Your task to perform on an android device: Show the shopping cart on amazon.com. Search for duracell triple a on amazon.com, select the first entry, add it to the cart, then select checkout. Image 0: 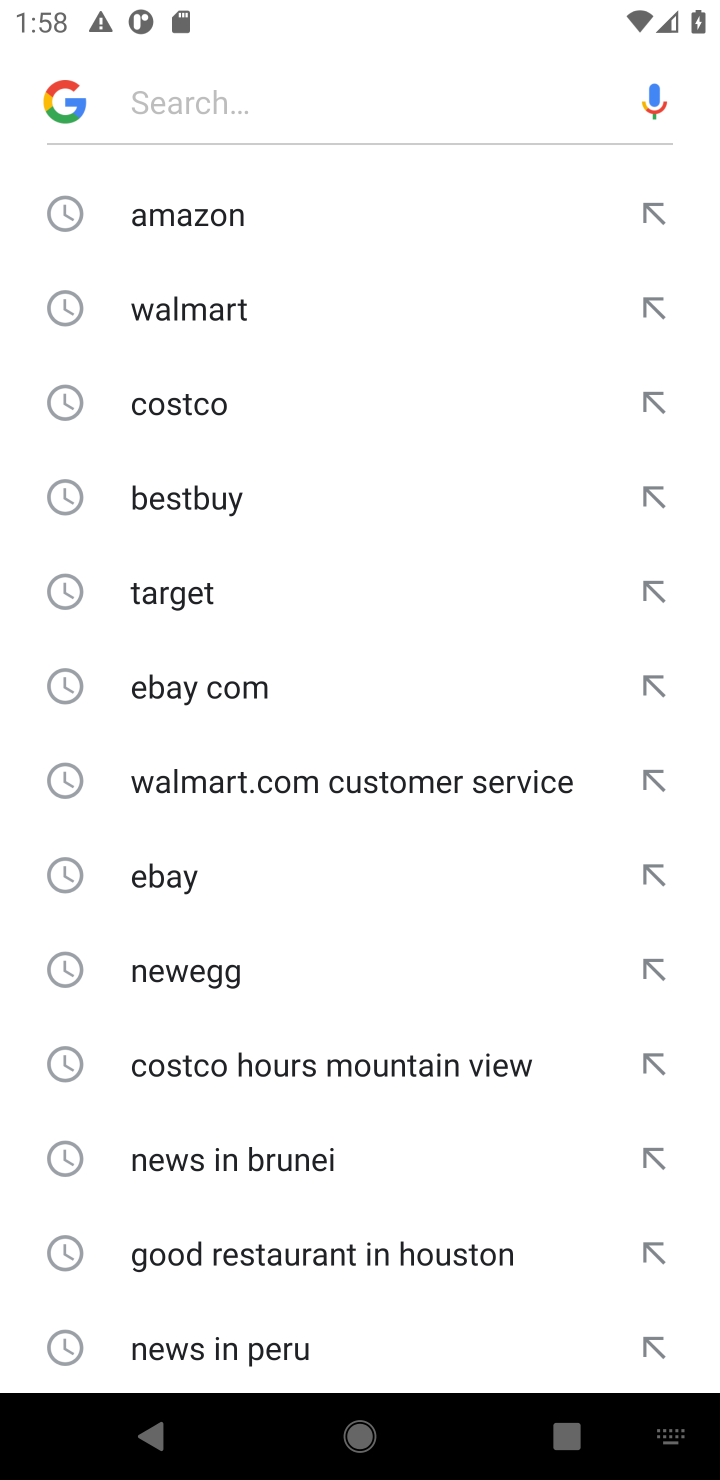
Step 0: press home button
Your task to perform on an android device: Show the shopping cart on amazon.com. Search for duracell triple a on amazon.com, select the first entry, add it to the cart, then select checkout. Image 1: 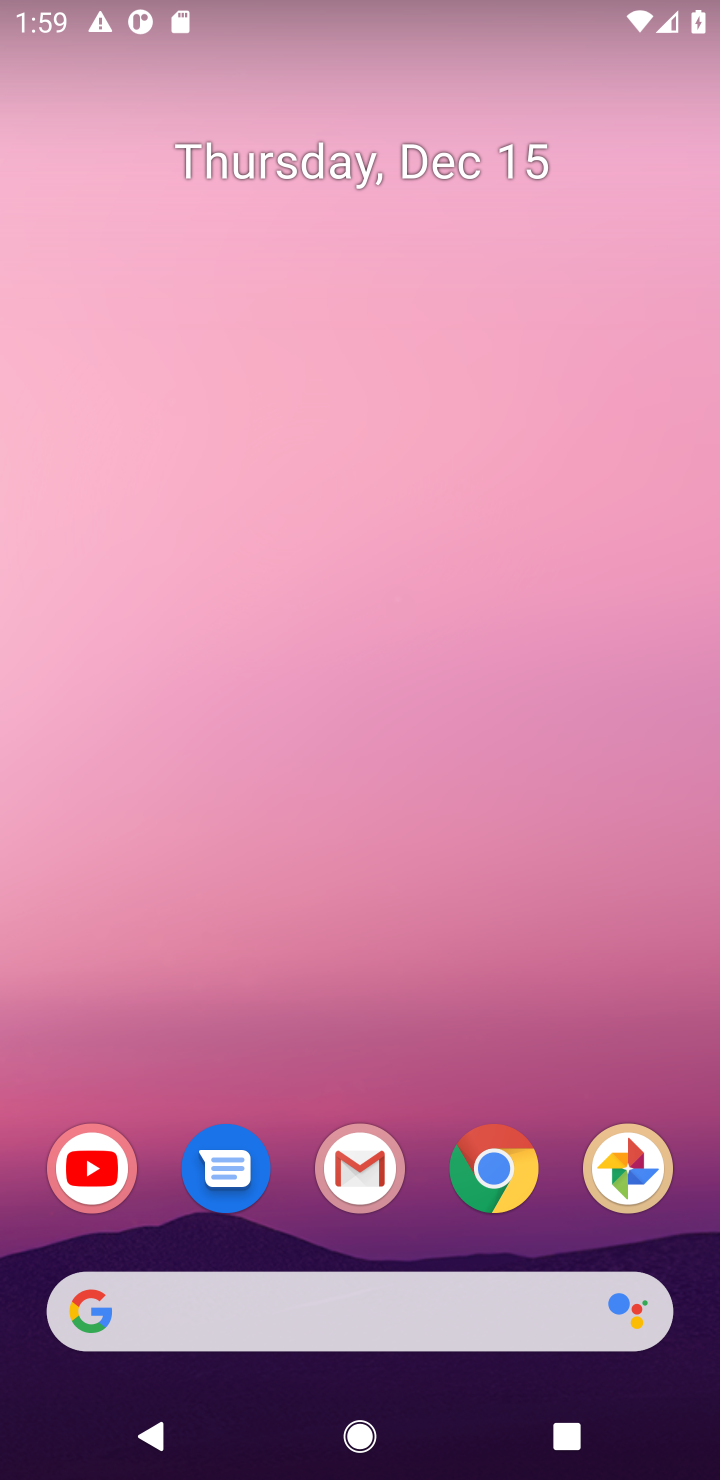
Step 1: click (505, 1187)
Your task to perform on an android device: Show the shopping cart on amazon.com. Search for duracell triple a on amazon.com, select the first entry, add it to the cart, then select checkout. Image 2: 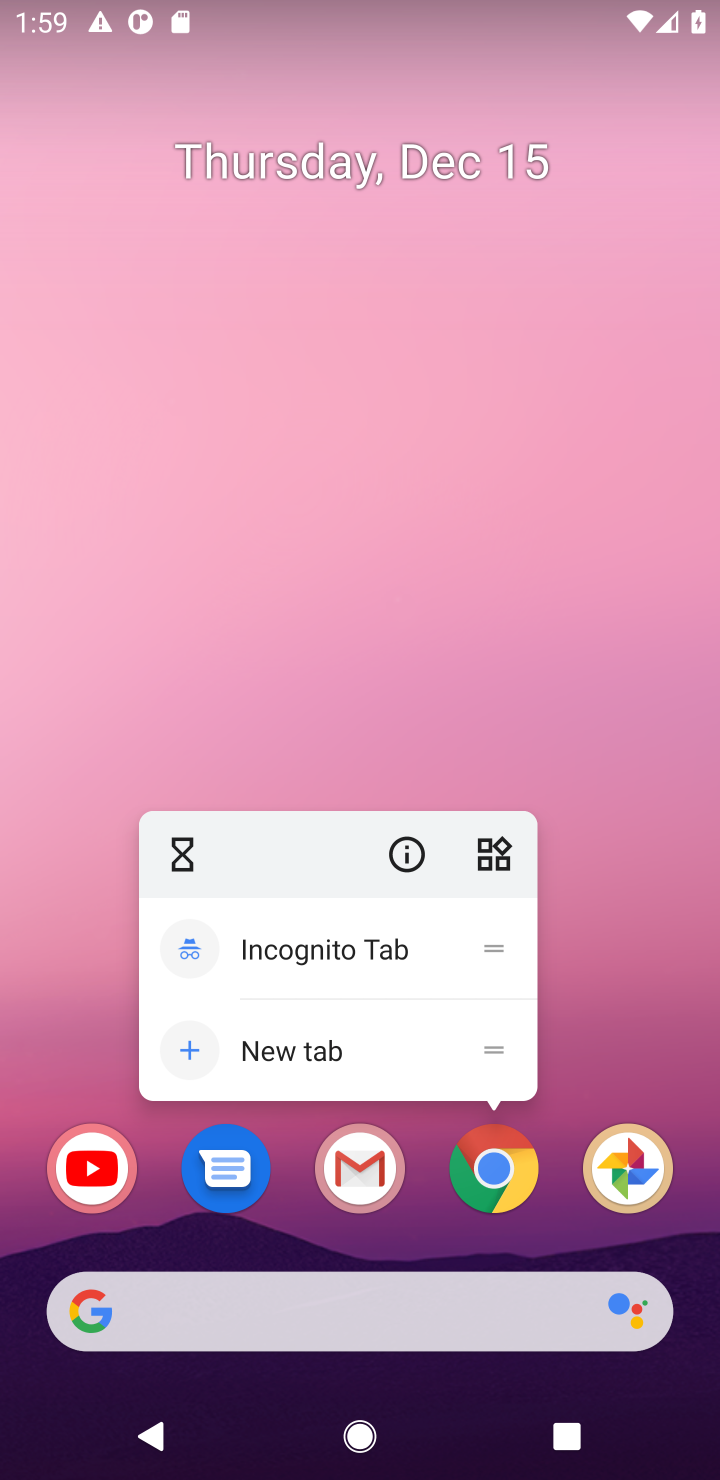
Step 2: click (505, 1187)
Your task to perform on an android device: Show the shopping cart on amazon.com. Search for duracell triple a on amazon.com, select the first entry, add it to the cart, then select checkout. Image 3: 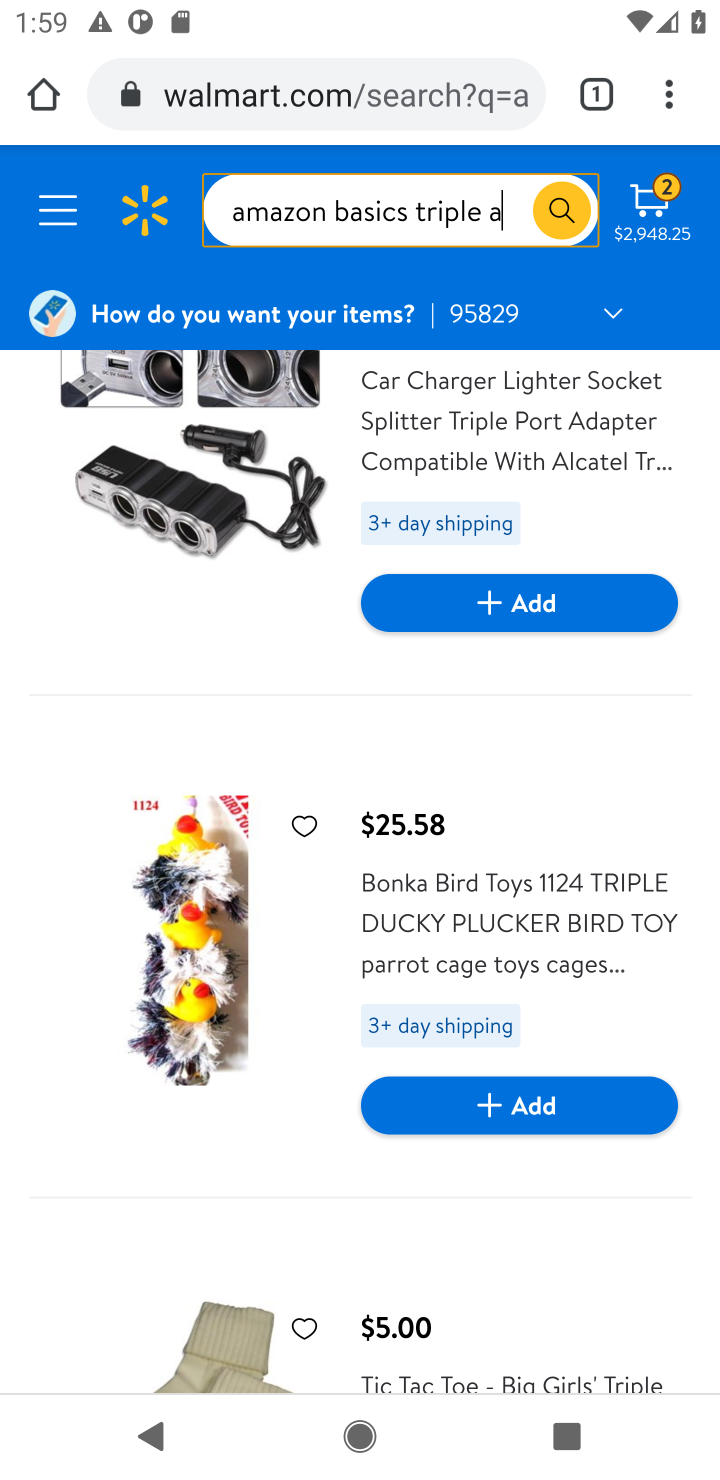
Step 3: click (447, 98)
Your task to perform on an android device: Show the shopping cart on amazon.com. Search for duracell triple a on amazon.com, select the first entry, add it to the cart, then select checkout. Image 4: 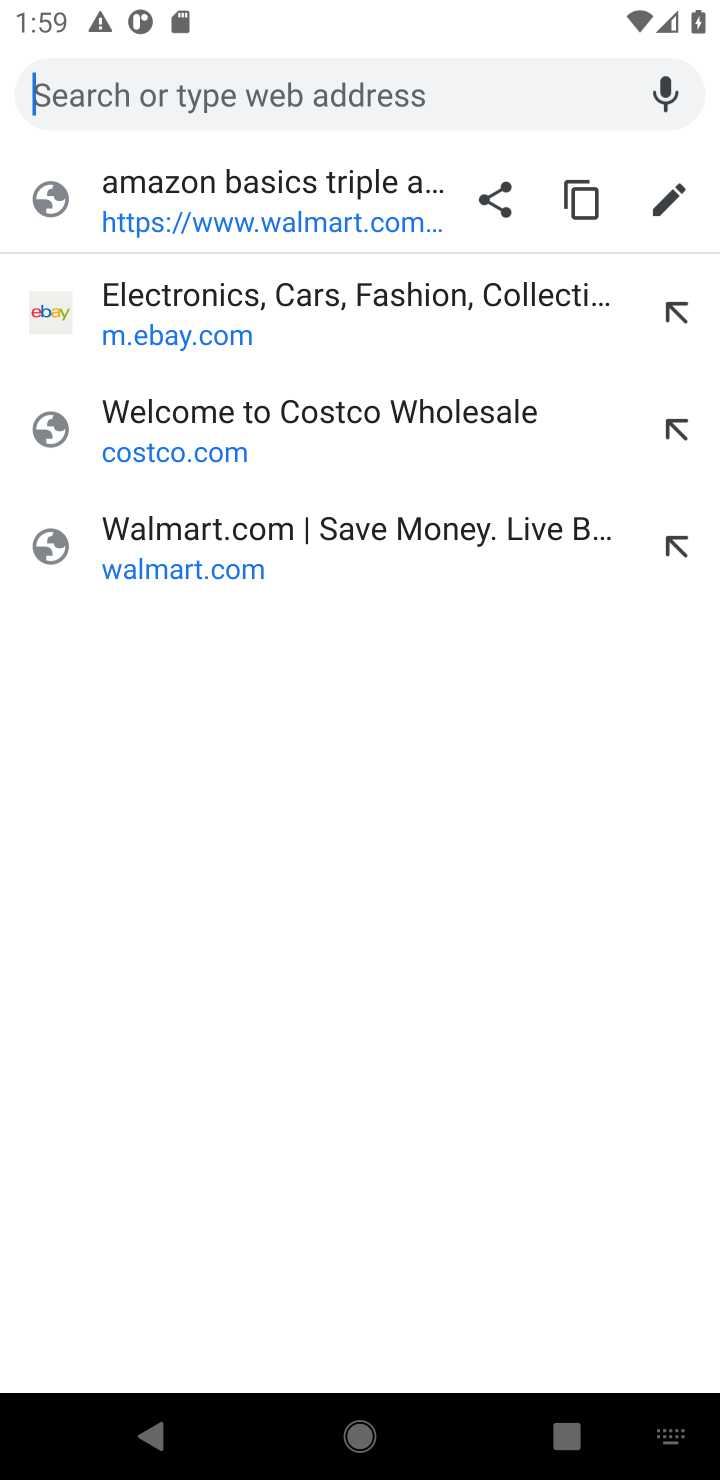
Step 4: press enter
Your task to perform on an android device: Show the shopping cart on amazon.com. Search for duracell triple a on amazon.com, select the first entry, add it to the cart, then select checkout. Image 5: 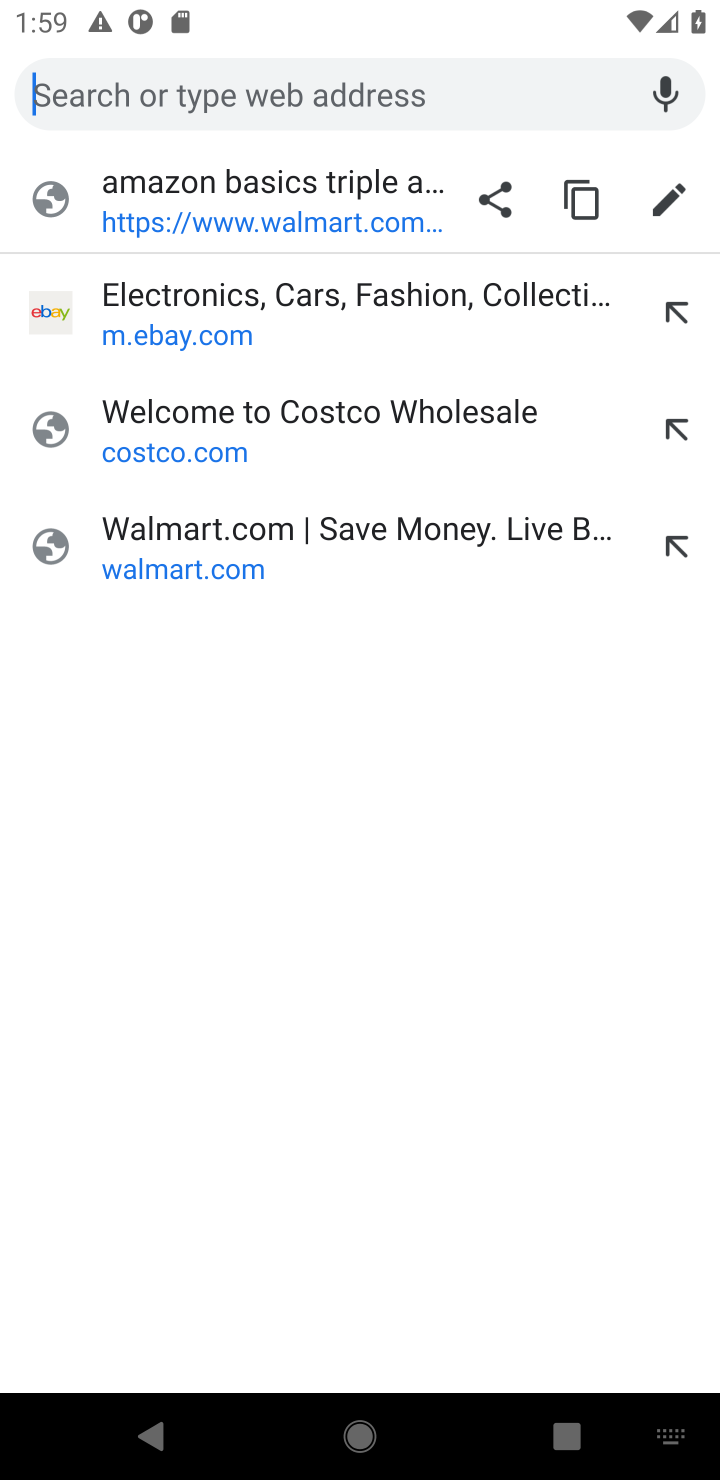
Step 5: type "amazon.com"
Your task to perform on an android device: Show the shopping cart on amazon.com. Search for duracell triple a on amazon.com, select the first entry, add it to the cart, then select checkout. Image 6: 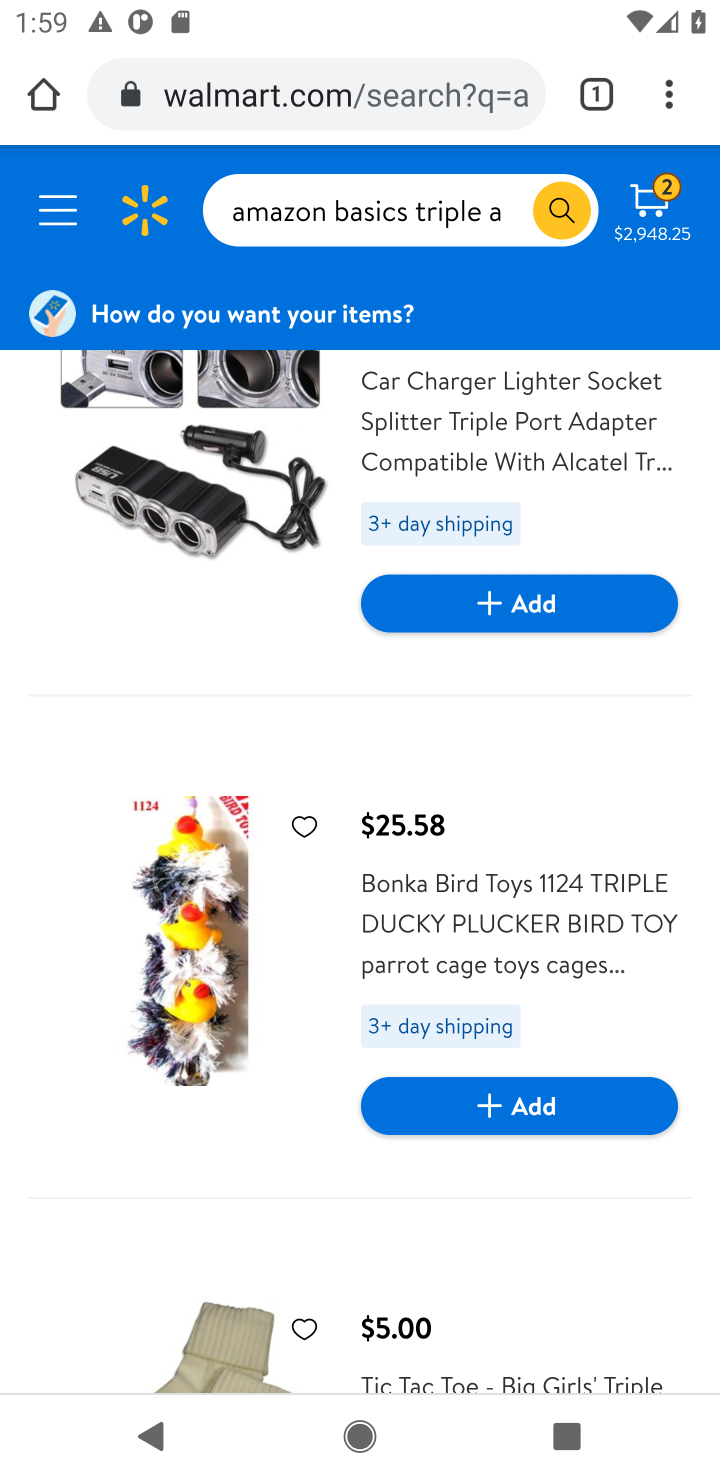
Step 6: click (41, 104)
Your task to perform on an android device: Show the shopping cart on amazon.com. Search for duracell triple a on amazon.com, select the first entry, add it to the cart, then select checkout. Image 7: 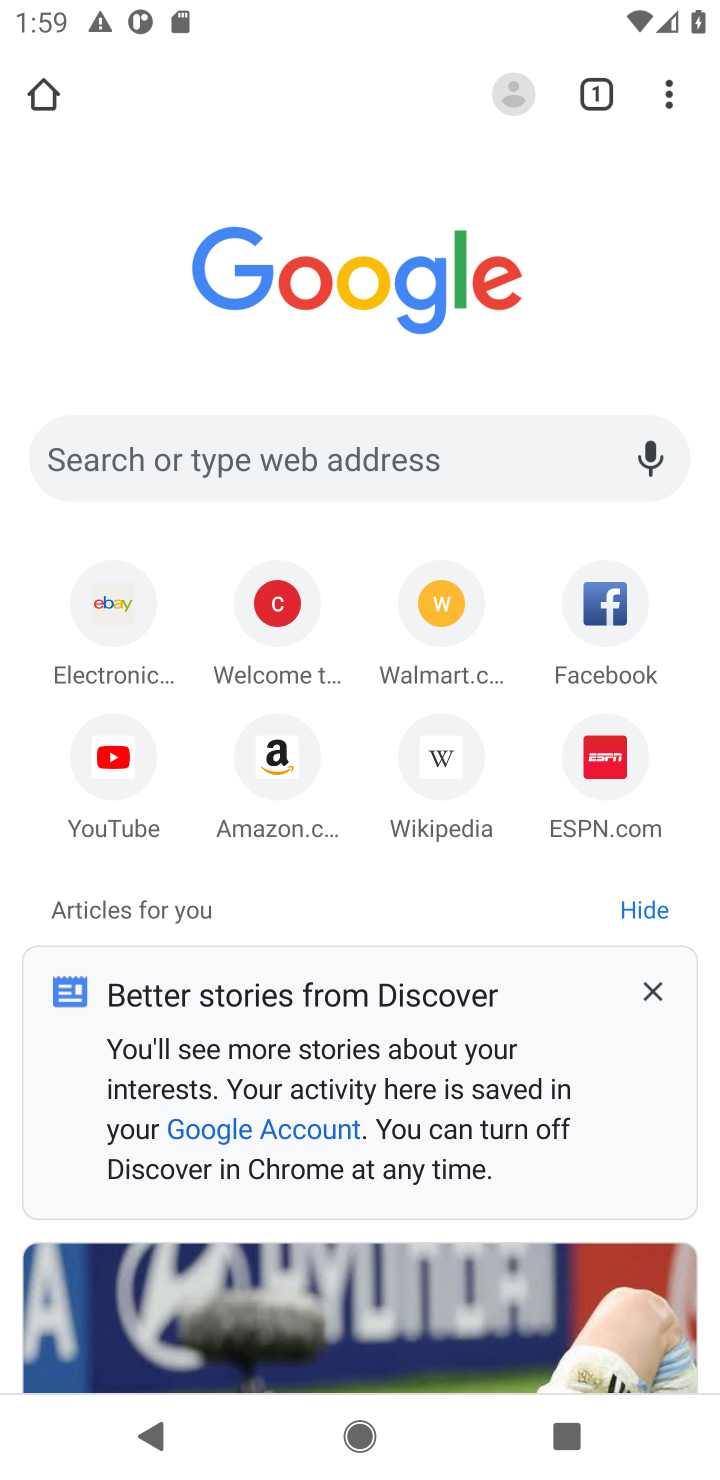
Step 7: click (292, 761)
Your task to perform on an android device: Show the shopping cart on amazon.com. Search for duracell triple a on amazon.com, select the first entry, add it to the cart, then select checkout. Image 8: 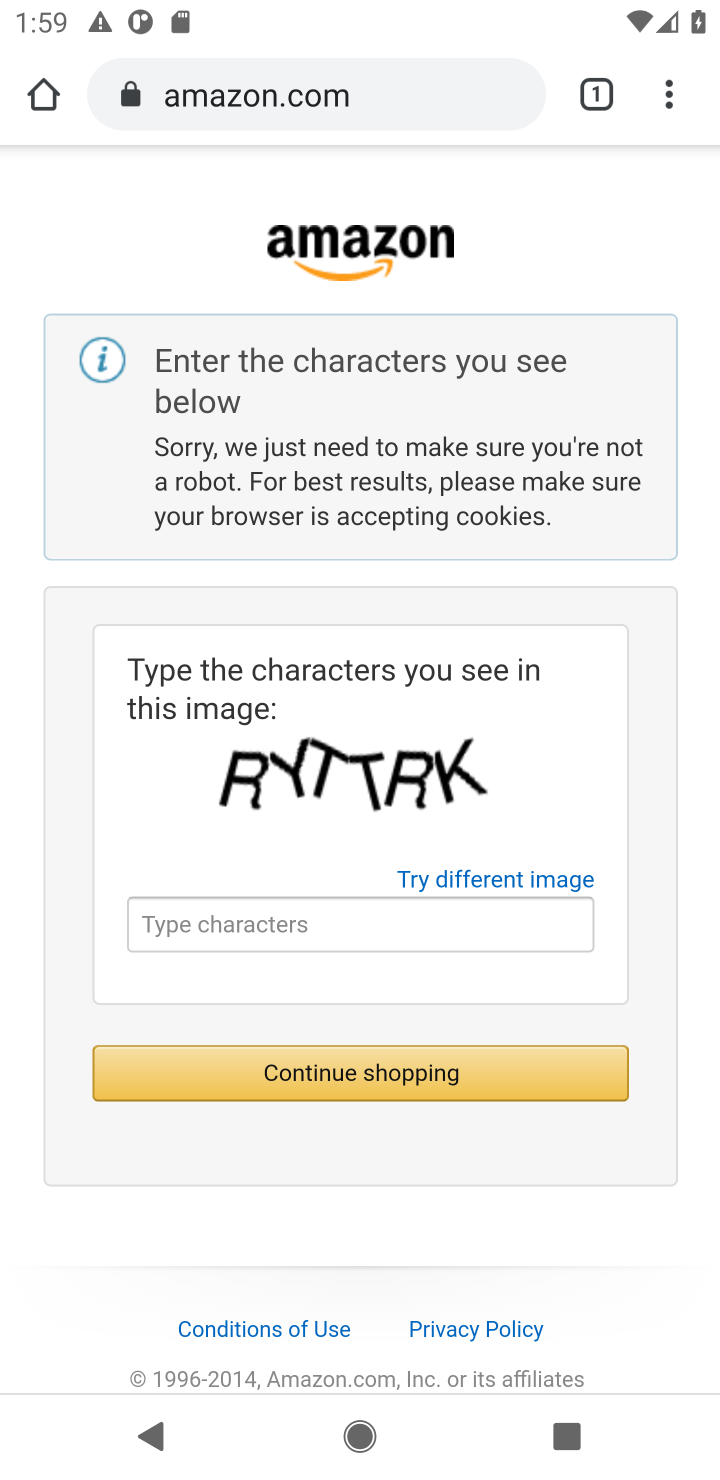
Step 8: click (39, 101)
Your task to perform on an android device: Show the shopping cart on amazon.com. Search for duracell triple a on amazon.com, select the first entry, add it to the cart, then select checkout. Image 9: 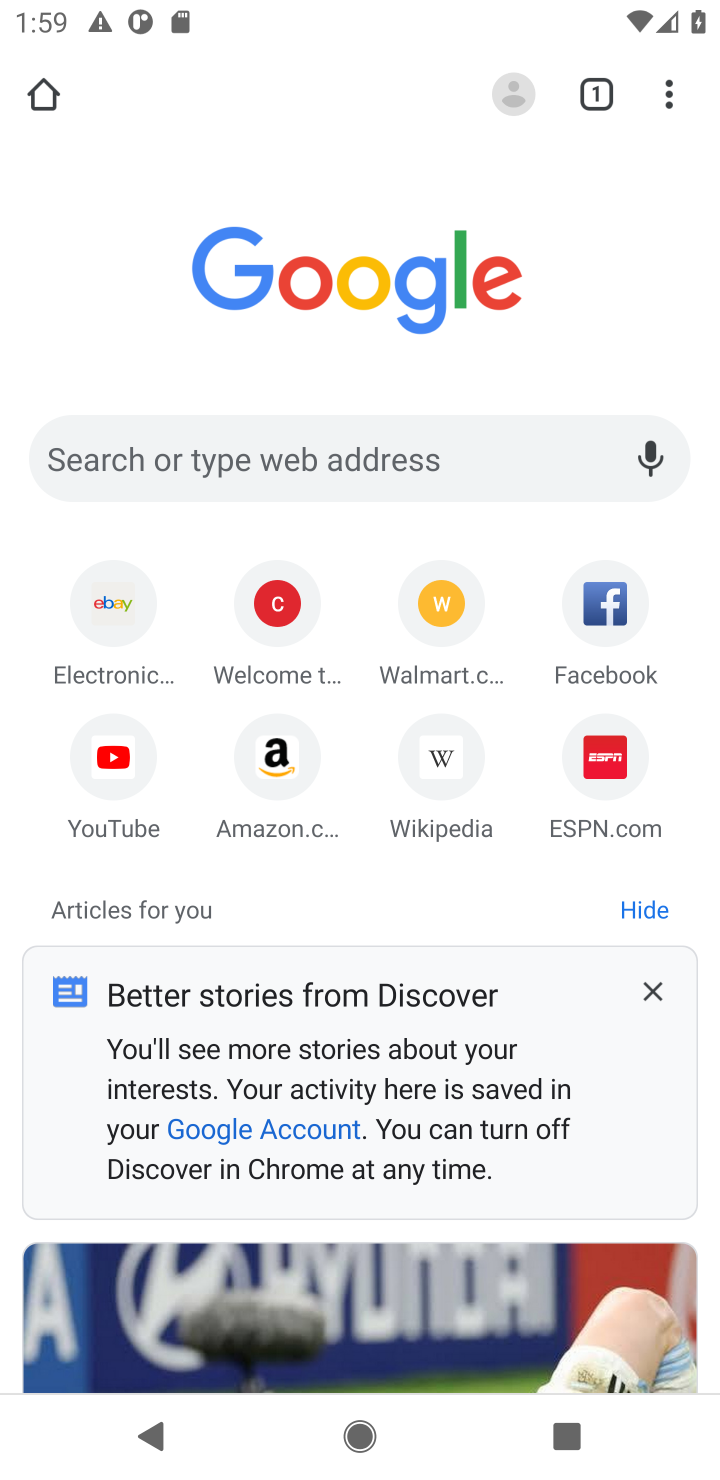
Step 9: click (289, 760)
Your task to perform on an android device: Show the shopping cart on amazon.com. Search for duracell triple a on amazon.com, select the first entry, add it to the cart, then select checkout. Image 10: 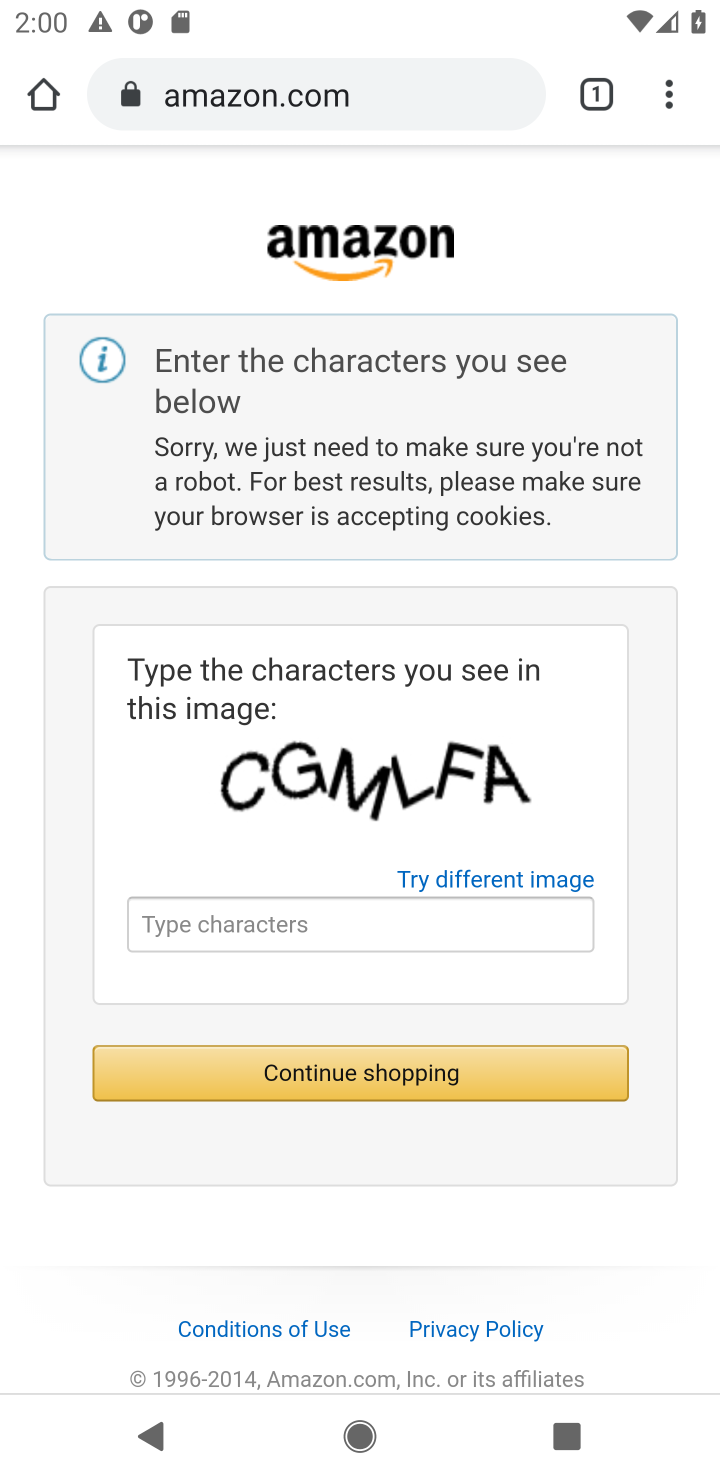
Step 10: press back button
Your task to perform on an android device: Show the shopping cart on amazon.com. Search for duracell triple a on amazon.com, select the first entry, add it to the cart, then select checkout. Image 11: 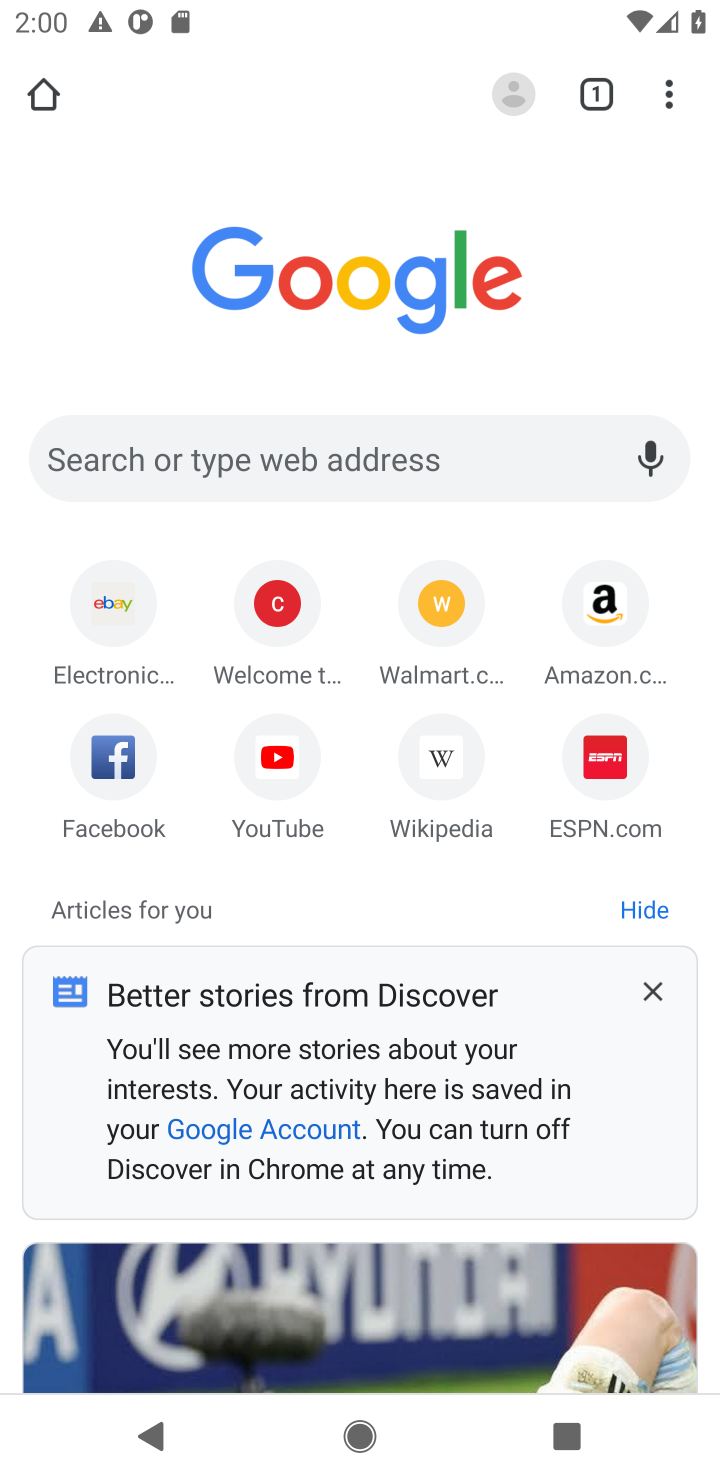
Step 11: click (485, 457)
Your task to perform on an android device: Show the shopping cart on amazon.com. Search for duracell triple a on amazon.com, select the first entry, add it to the cart, then select checkout. Image 12: 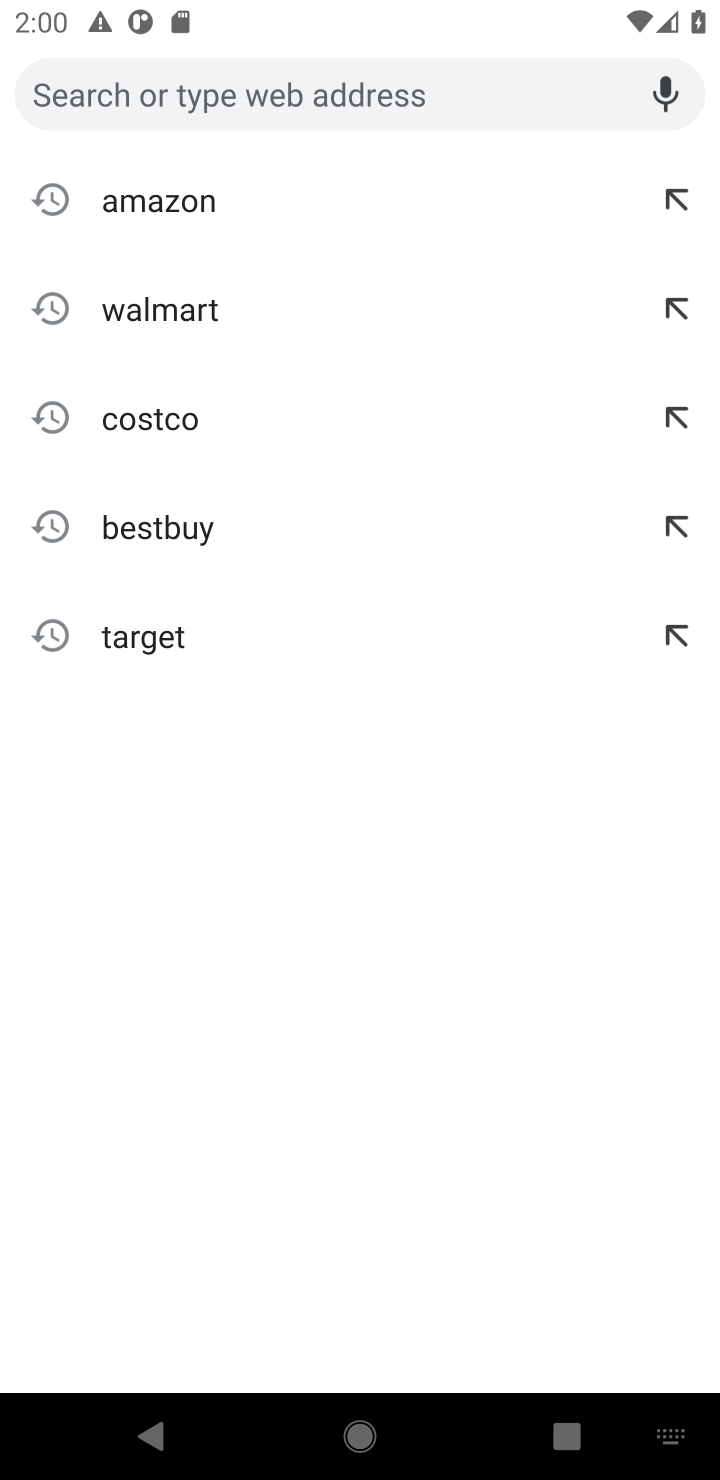
Step 12: click (184, 204)
Your task to perform on an android device: Show the shopping cart on amazon.com. Search for duracell triple a on amazon.com, select the first entry, add it to the cart, then select checkout. Image 13: 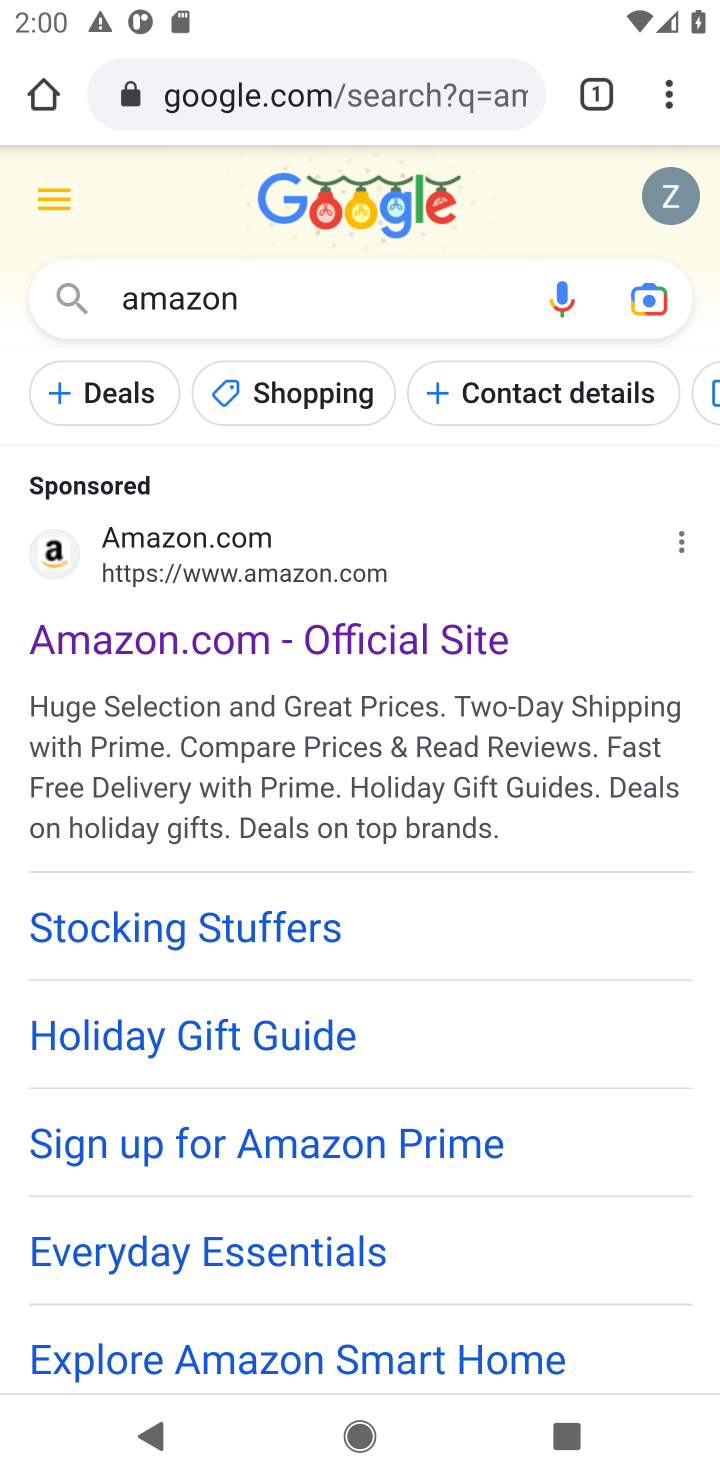
Step 13: click (255, 585)
Your task to perform on an android device: Show the shopping cart on amazon.com. Search for duracell triple a on amazon.com, select the first entry, add it to the cart, then select checkout. Image 14: 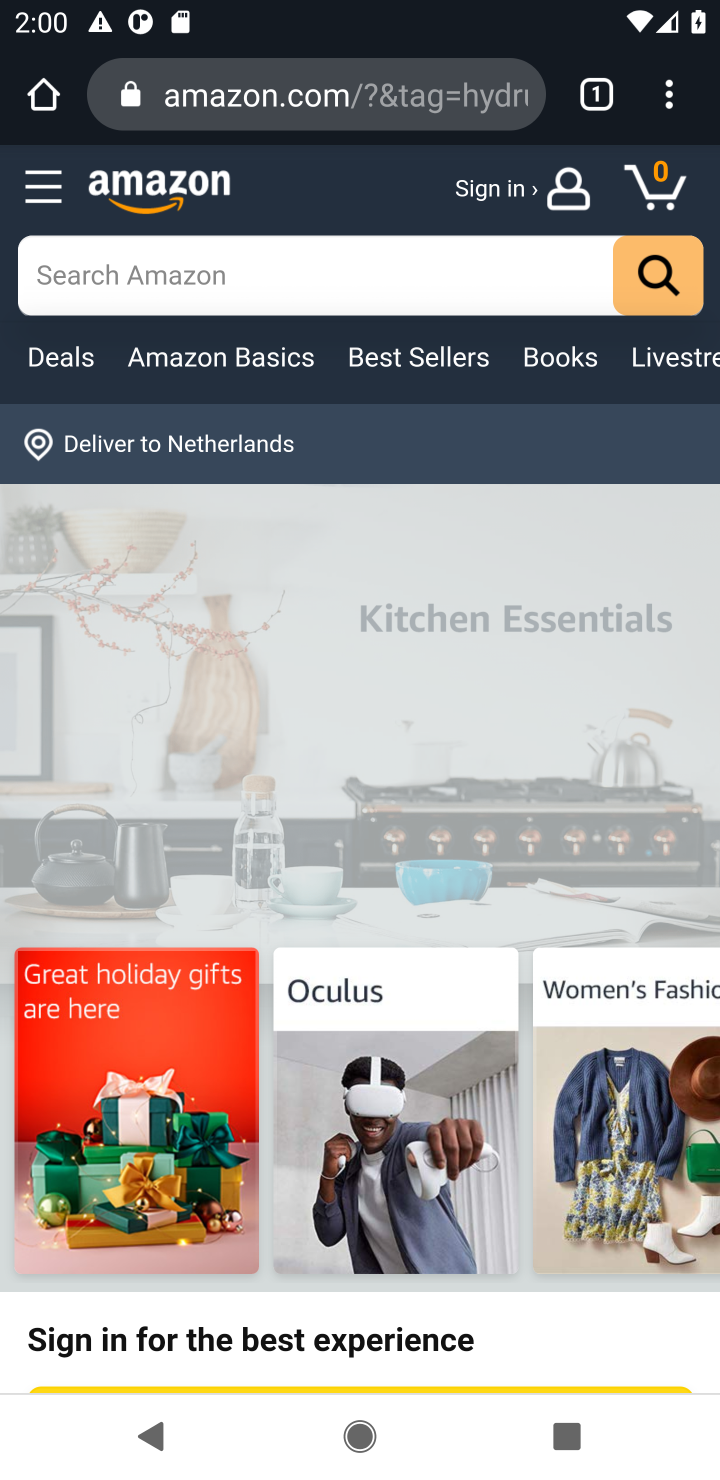
Step 14: click (262, 287)
Your task to perform on an android device: Show the shopping cart on amazon.com. Search for duracell triple a on amazon.com, select the first entry, add it to the cart, then select checkout. Image 15: 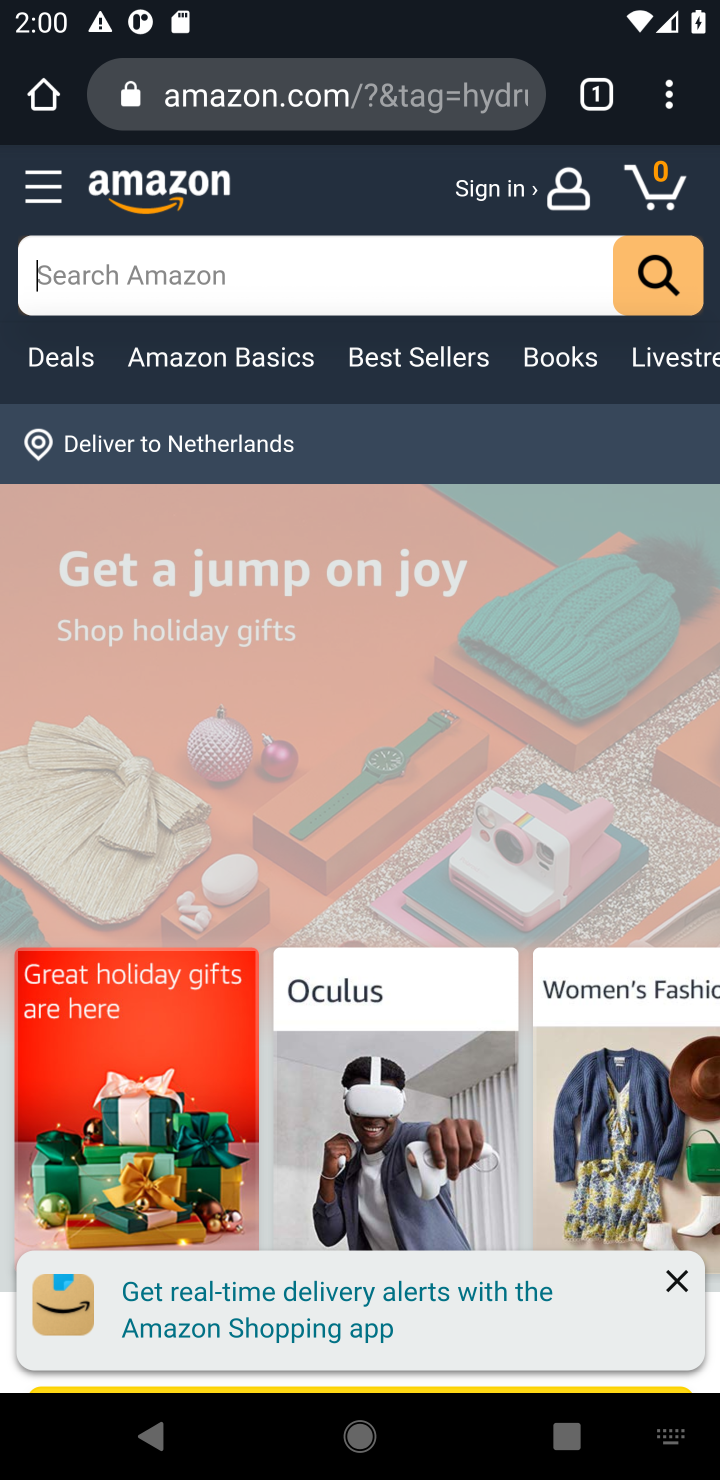
Step 15: press enter
Your task to perform on an android device: Show the shopping cart on amazon.com. Search for duracell triple a on amazon.com, select the first entry, add it to the cart, then select checkout. Image 16: 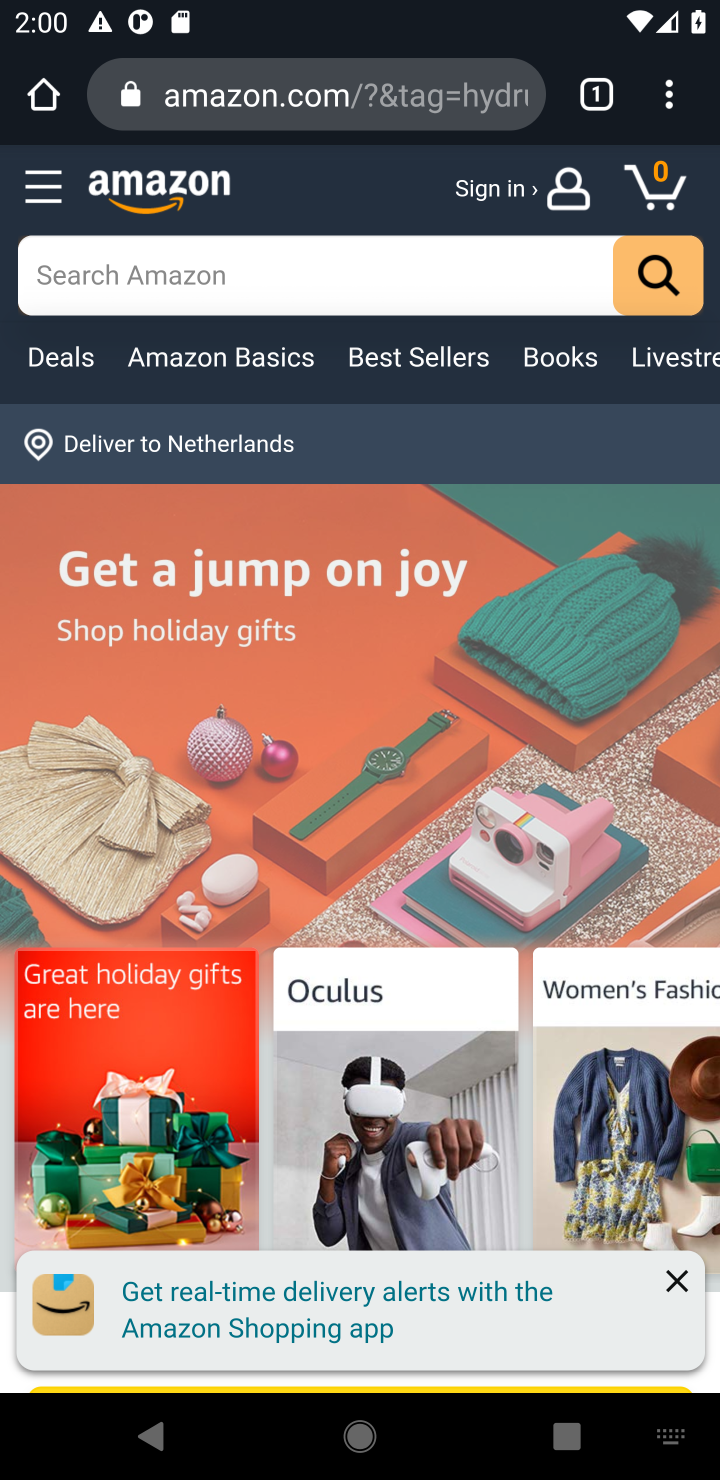
Step 16: type "duracell triple a"
Your task to perform on an android device: Show the shopping cart on amazon.com. Search for duracell triple a on amazon.com, select the first entry, add it to the cart, then select checkout. Image 17: 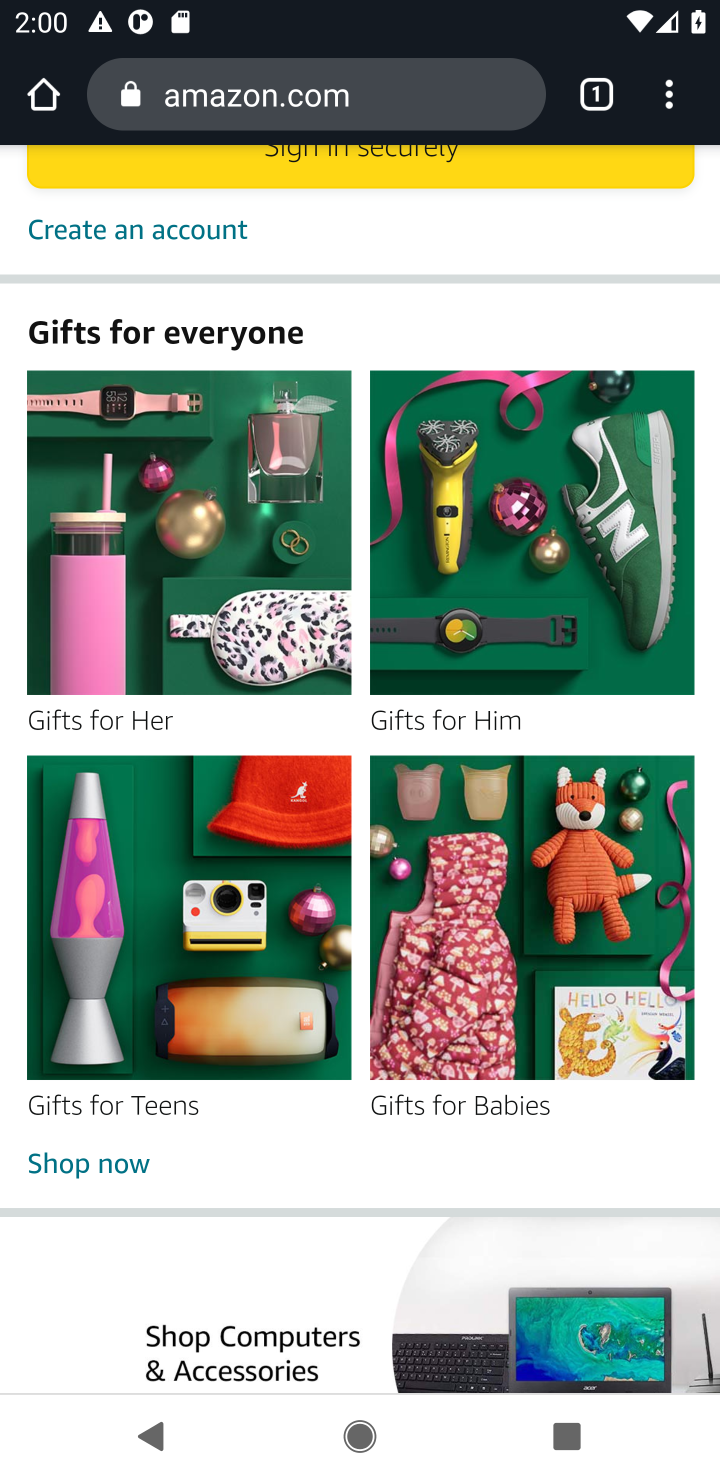
Step 17: press back button
Your task to perform on an android device: Show the shopping cart on amazon.com. Search for duracell triple a on amazon.com, select the first entry, add it to the cart, then select checkout. Image 18: 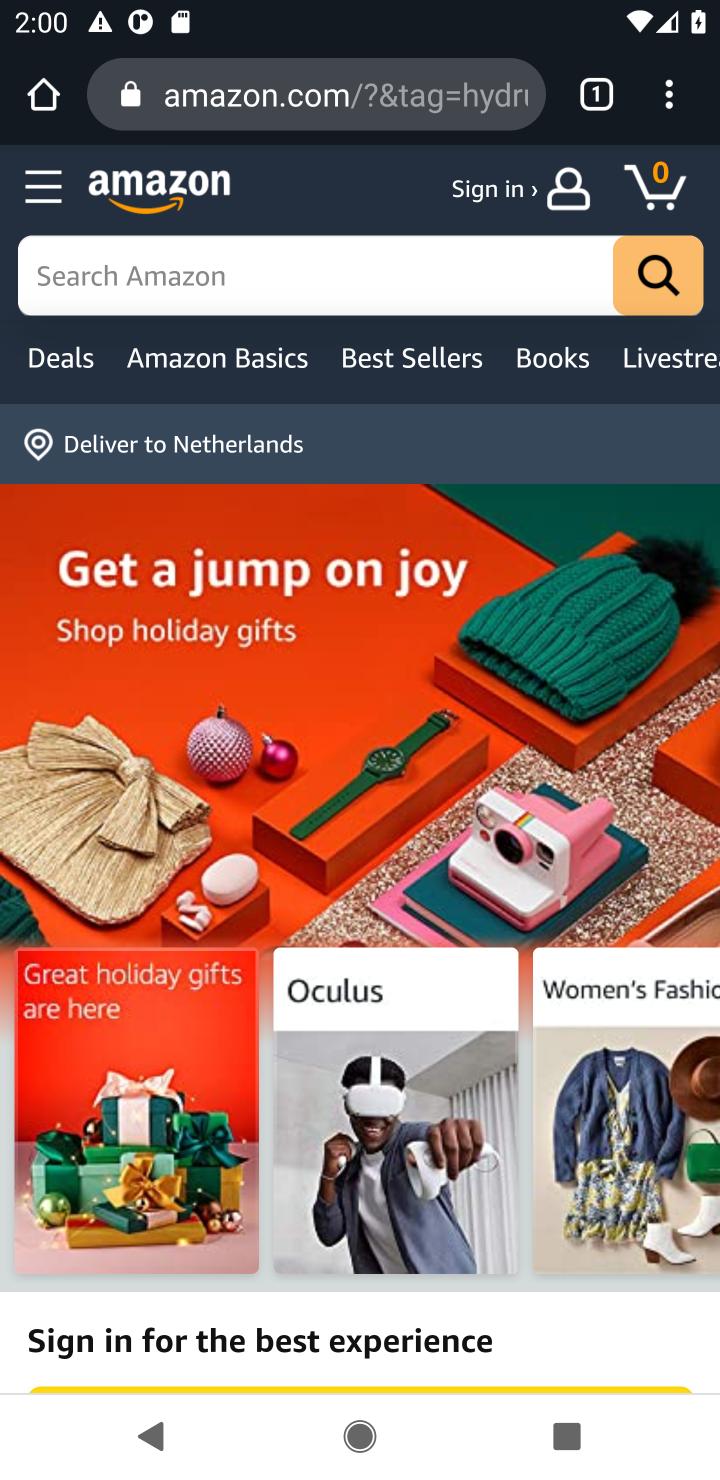
Step 18: click (370, 267)
Your task to perform on an android device: Show the shopping cart on amazon.com. Search for duracell triple a on amazon.com, select the first entry, add it to the cart, then select checkout. Image 19: 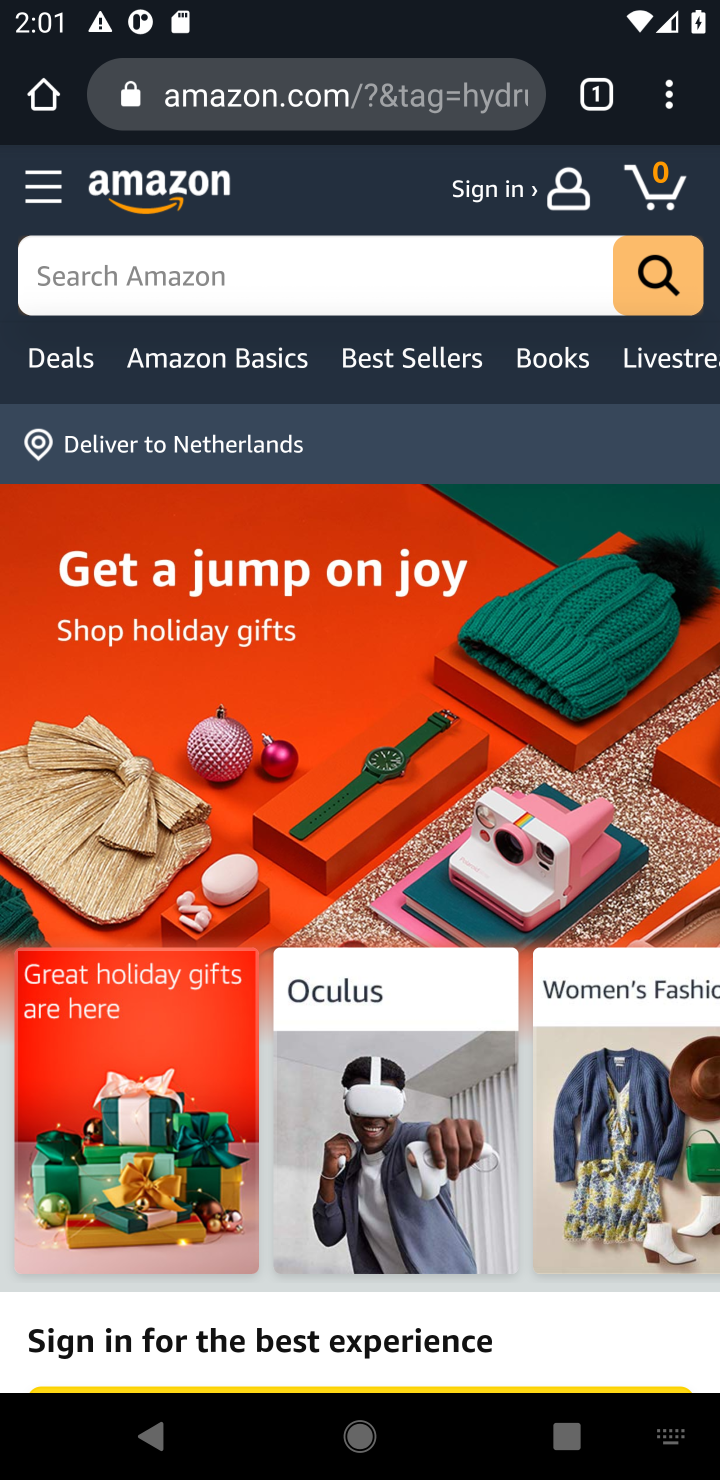
Step 19: press enter
Your task to perform on an android device: Show the shopping cart on amazon.com. Search for duracell triple a on amazon.com, select the first entry, add it to the cart, then select checkout. Image 20: 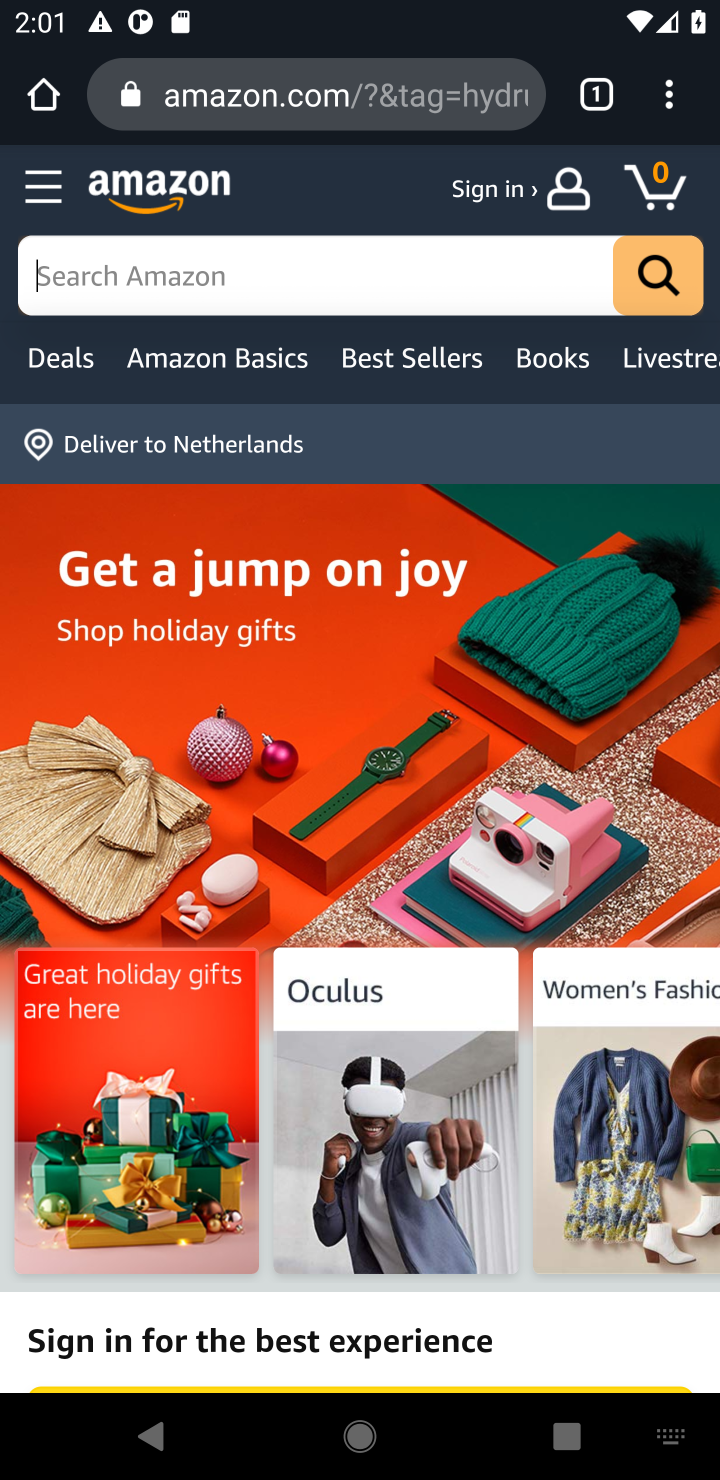
Step 20: type "duracell triple a"
Your task to perform on an android device: Show the shopping cart on amazon.com. Search for duracell triple a on amazon.com, select the first entry, add it to the cart, then select checkout. Image 21: 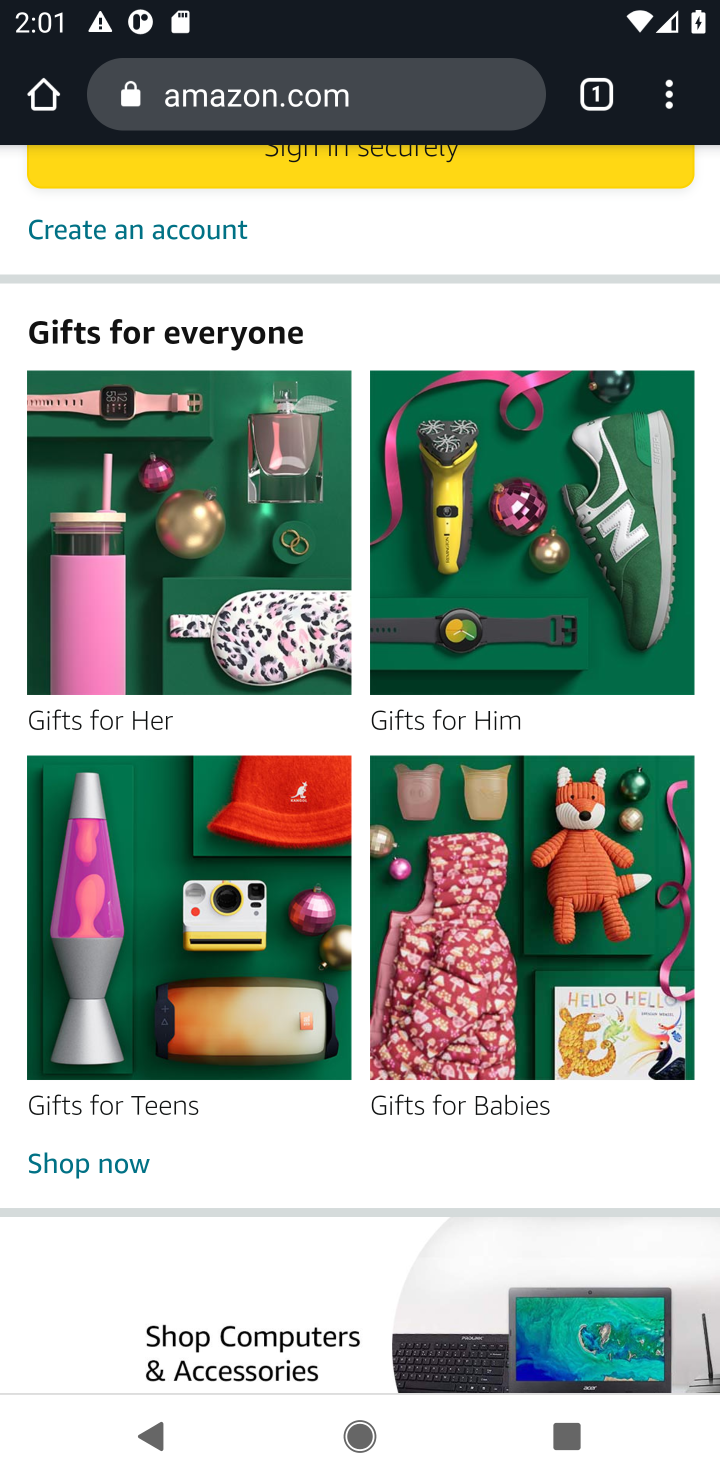
Step 21: task complete